Your task to perform on an android device: Open maps Image 0: 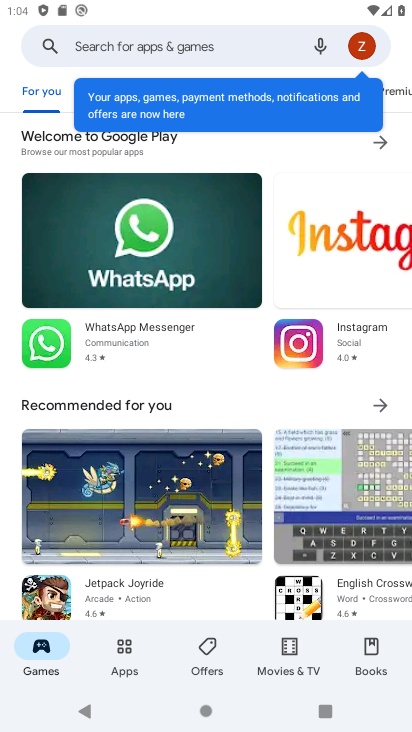
Step 0: press home button
Your task to perform on an android device: Open maps Image 1: 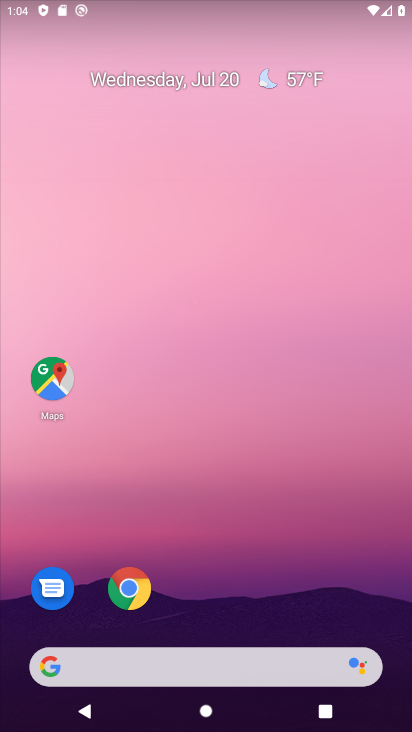
Step 1: click (46, 376)
Your task to perform on an android device: Open maps Image 2: 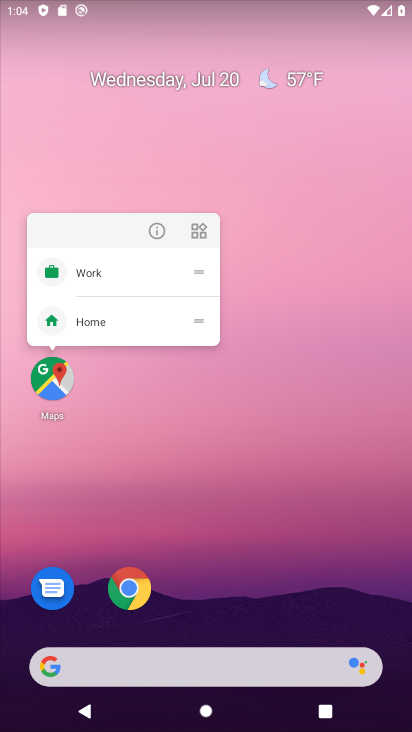
Step 2: click (36, 381)
Your task to perform on an android device: Open maps Image 3: 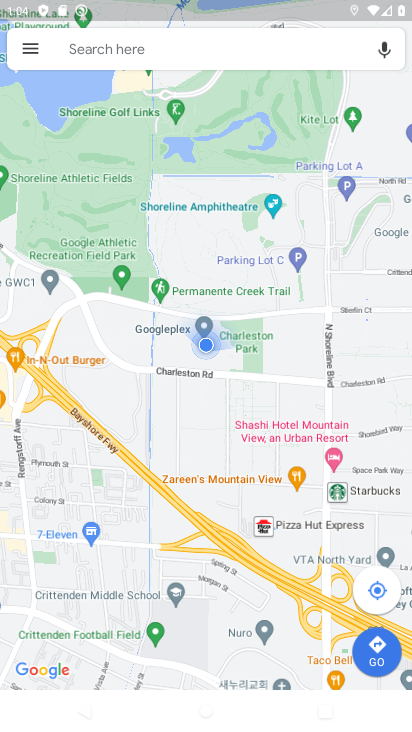
Step 3: task complete